Your task to perform on an android device: Open the calendar app, open the side menu, and click the "Day" option Image 0: 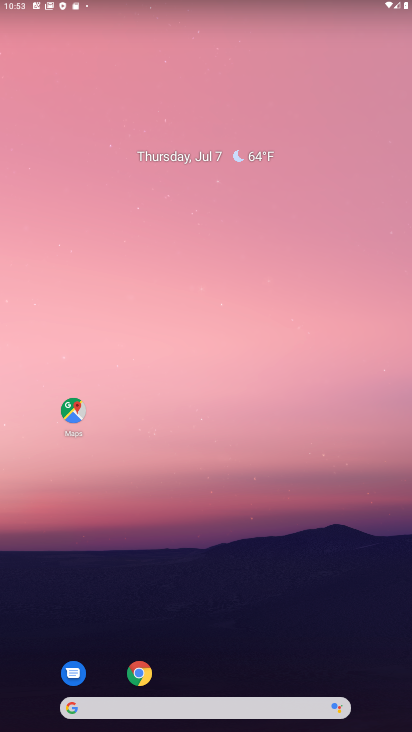
Step 0: drag from (192, 650) to (161, 76)
Your task to perform on an android device: Open the calendar app, open the side menu, and click the "Day" option Image 1: 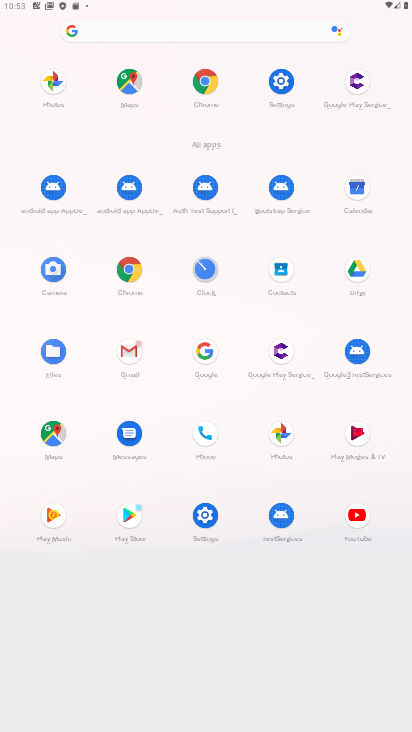
Step 1: click (361, 192)
Your task to perform on an android device: Open the calendar app, open the side menu, and click the "Day" option Image 2: 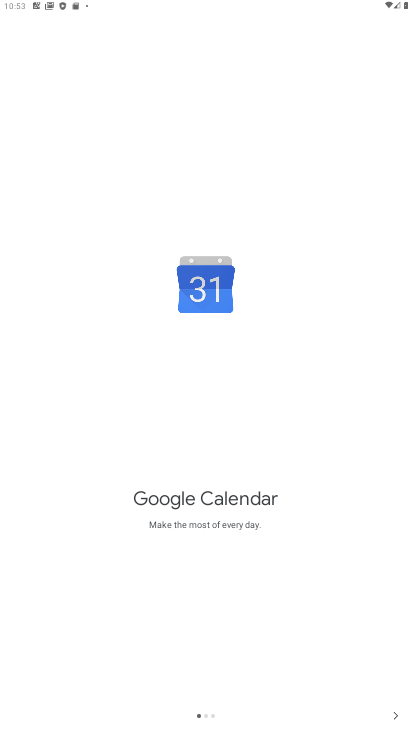
Step 2: click (386, 706)
Your task to perform on an android device: Open the calendar app, open the side menu, and click the "Day" option Image 3: 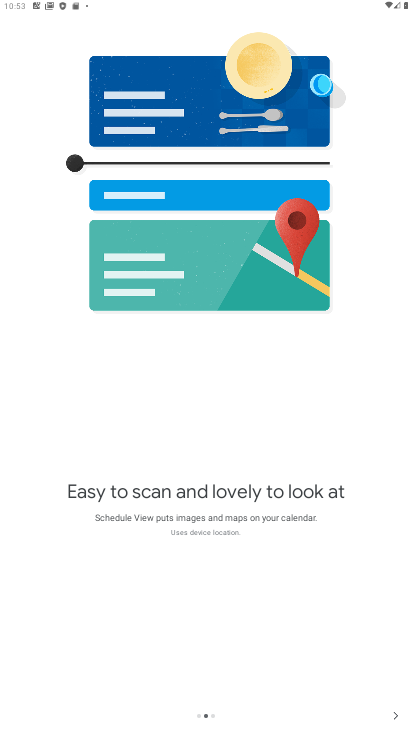
Step 3: click (394, 713)
Your task to perform on an android device: Open the calendar app, open the side menu, and click the "Day" option Image 4: 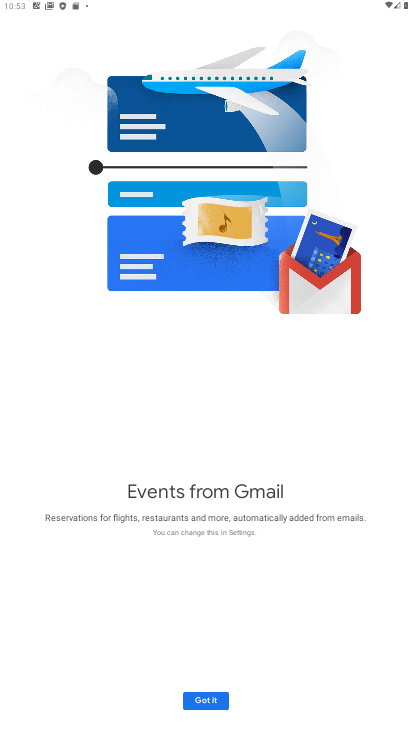
Step 4: click (220, 690)
Your task to perform on an android device: Open the calendar app, open the side menu, and click the "Day" option Image 5: 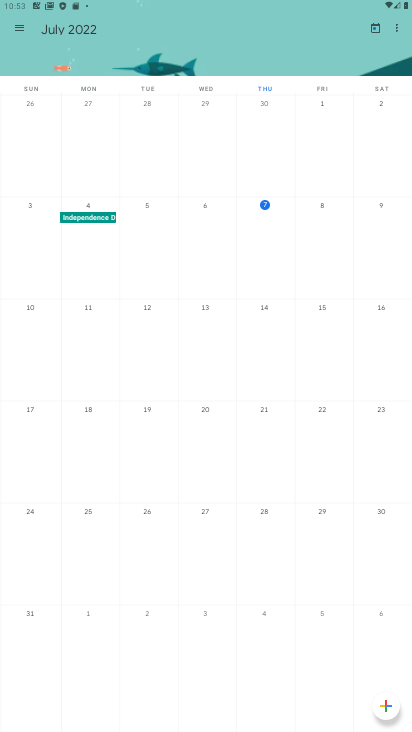
Step 5: click (17, 19)
Your task to perform on an android device: Open the calendar app, open the side menu, and click the "Day" option Image 6: 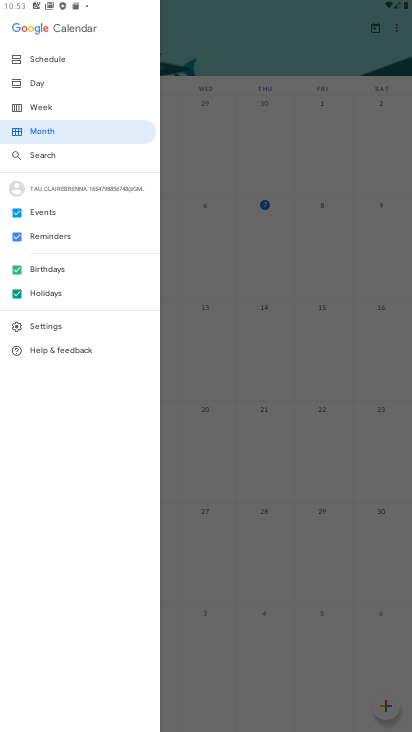
Step 6: click (42, 87)
Your task to perform on an android device: Open the calendar app, open the side menu, and click the "Day" option Image 7: 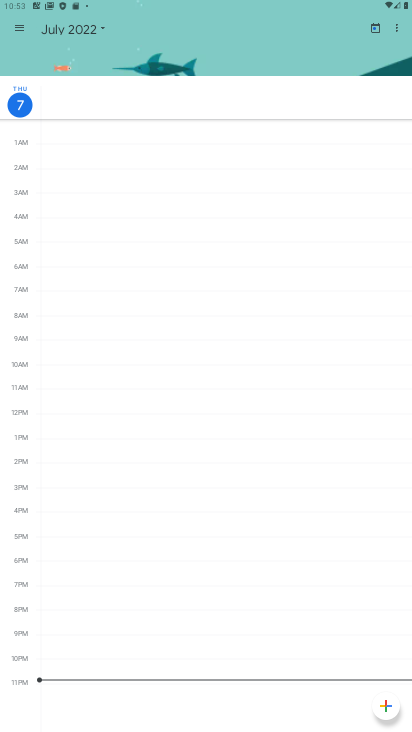
Step 7: task complete